Your task to perform on an android device: change alarm snooze length Image 0: 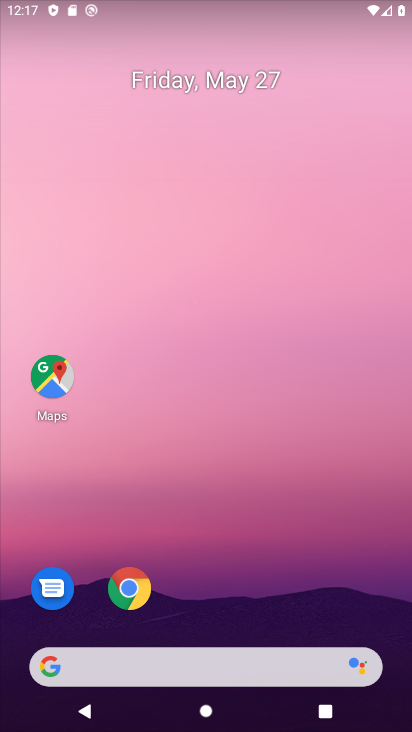
Step 0: drag from (210, 620) to (240, 25)
Your task to perform on an android device: change alarm snooze length Image 1: 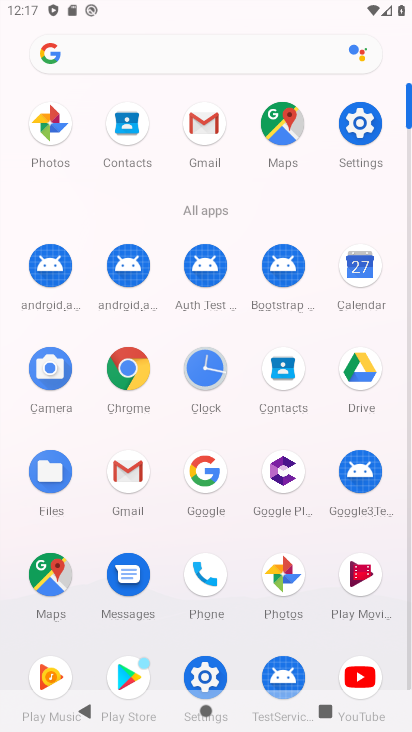
Step 1: click (203, 361)
Your task to perform on an android device: change alarm snooze length Image 2: 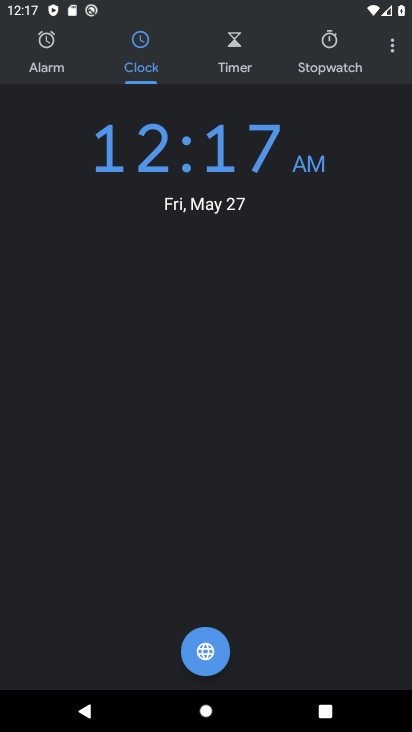
Step 2: click (392, 43)
Your task to perform on an android device: change alarm snooze length Image 3: 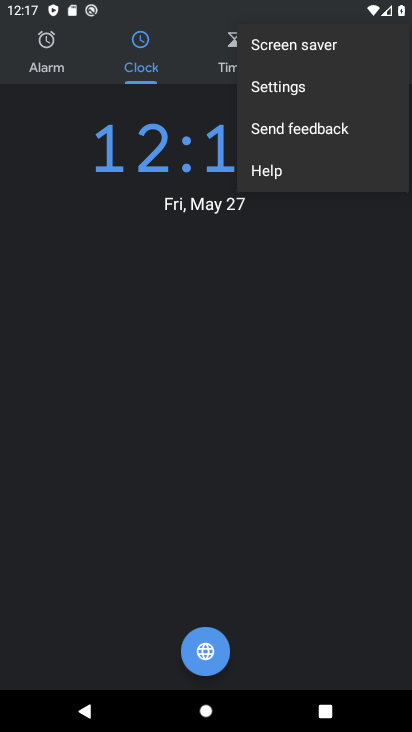
Step 3: click (316, 89)
Your task to perform on an android device: change alarm snooze length Image 4: 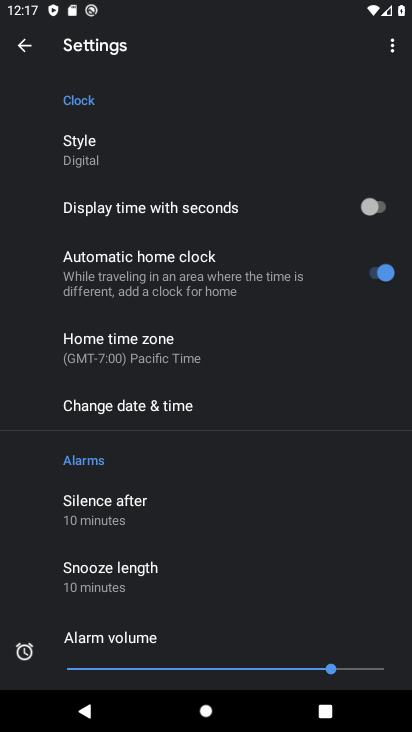
Step 4: click (156, 581)
Your task to perform on an android device: change alarm snooze length Image 5: 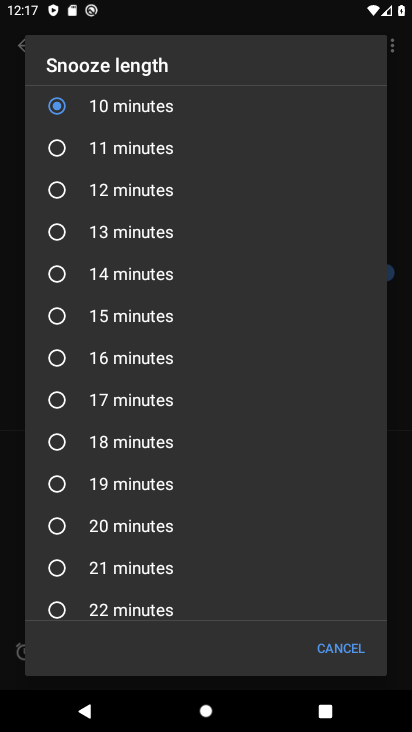
Step 5: drag from (82, 153) to (116, 508)
Your task to perform on an android device: change alarm snooze length Image 6: 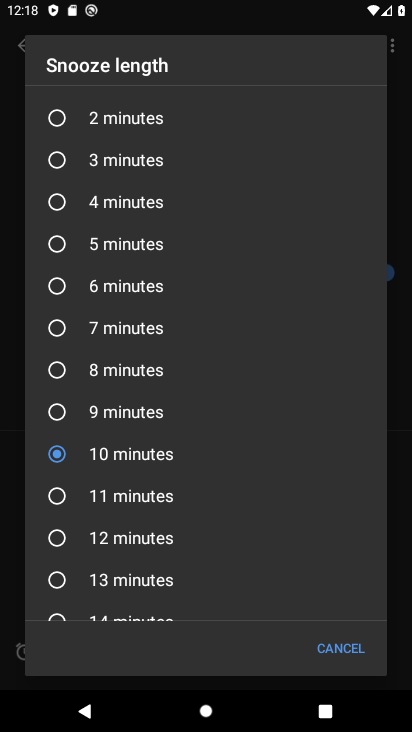
Step 6: click (62, 199)
Your task to perform on an android device: change alarm snooze length Image 7: 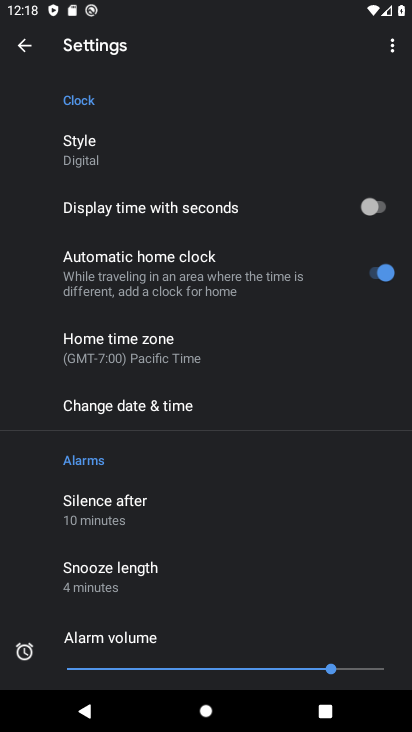
Step 7: task complete